Your task to perform on an android device: turn smart compose on in the gmail app Image 0: 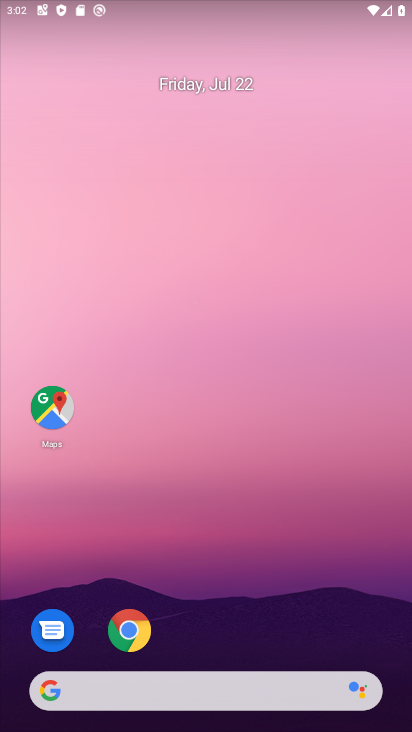
Step 0: drag from (394, 695) to (365, 87)
Your task to perform on an android device: turn smart compose on in the gmail app Image 1: 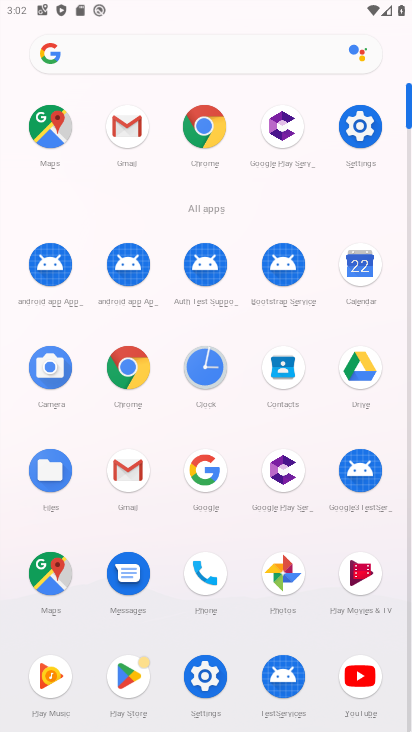
Step 1: click (102, 477)
Your task to perform on an android device: turn smart compose on in the gmail app Image 2: 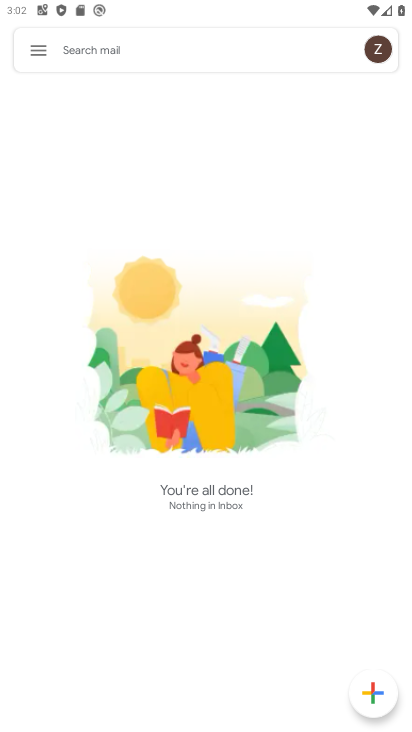
Step 2: click (36, 49)
Your task to perform on an android device: turn smart compose on in the gmail app Image 3: 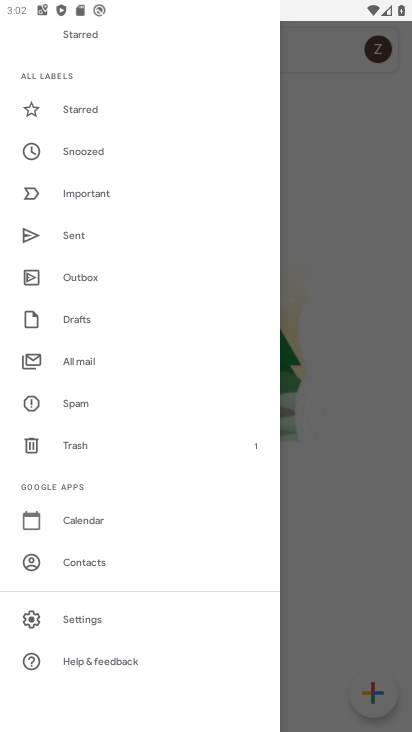
Step 3: click (55, 619)
Your task to perform on an android device: turn smart compose on in the gmail app Image 4: 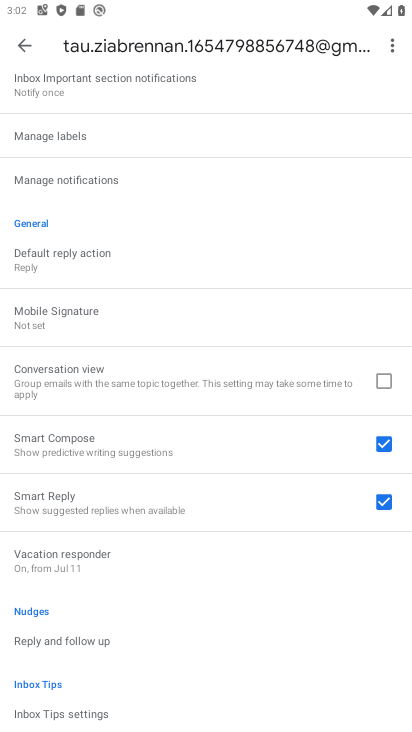
Step 4: task complete